Your task to perform on an android device: Empty the shopping cart on bestbuy. Add "bose soundlink mini" to the cart on bestbuy, then select checkout. Image 0: 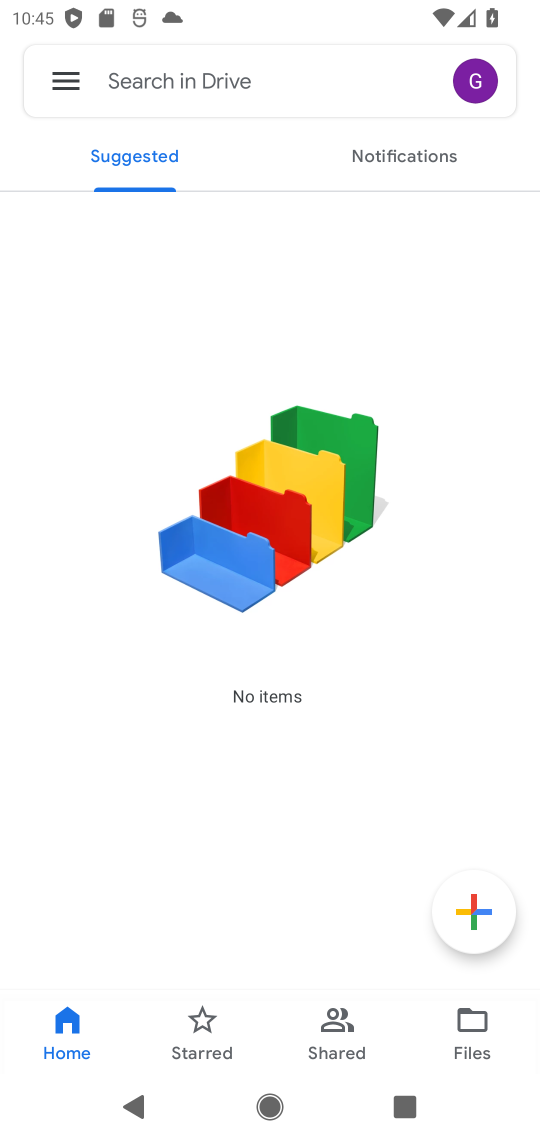
Step 0: press home button
Your task to perform on an android device: Empty the shopping cart on bestbuy. Add "bose soundlink mini" to the cart on bestbuy, then select checkout. Image 1: 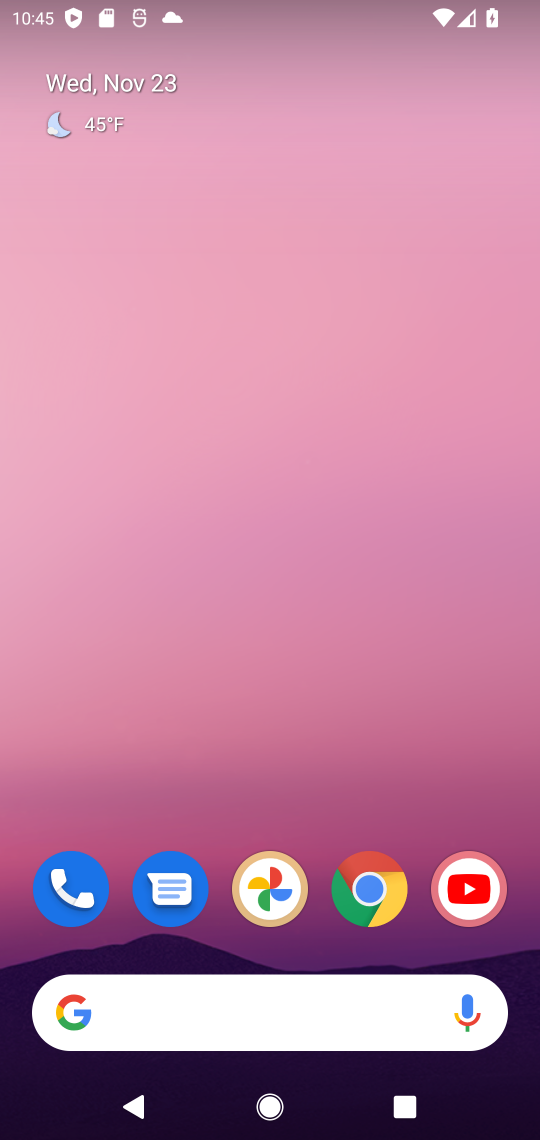
Step 1: click (373, 888)
Your task to perform on an android device: Empty the shopping cart on bestbuy. Add "bose soundlink mini" to the cart on bestbuy, then select checkout. Image 2: 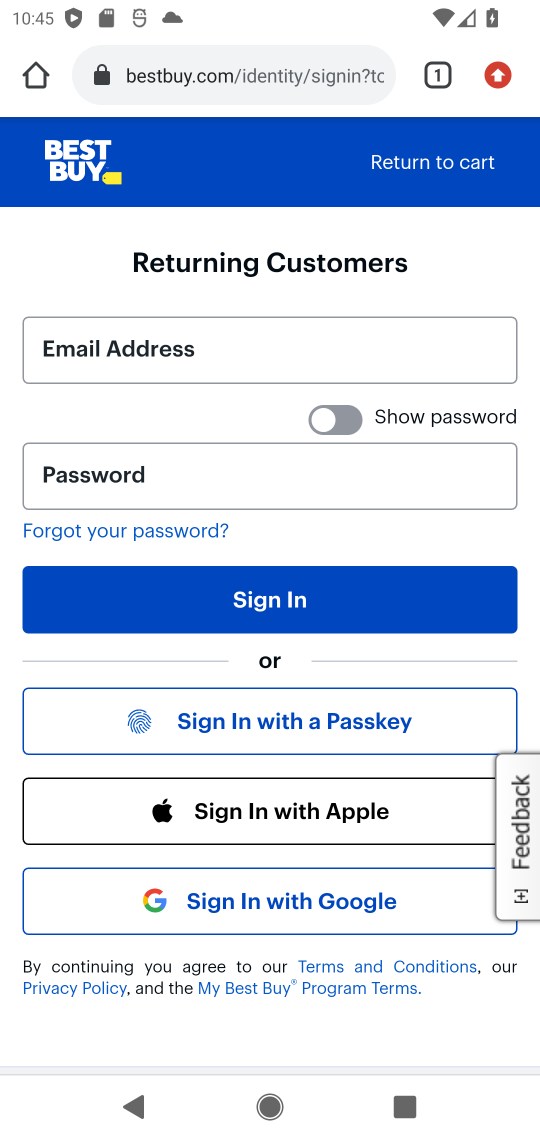
Step 2: click (190, 81)
Your task to perform on an android device: Empty the shopping cart on bestbuy. Add "bose soundlink mini" to the cart on bestbuy, then select checkout. Image 3: 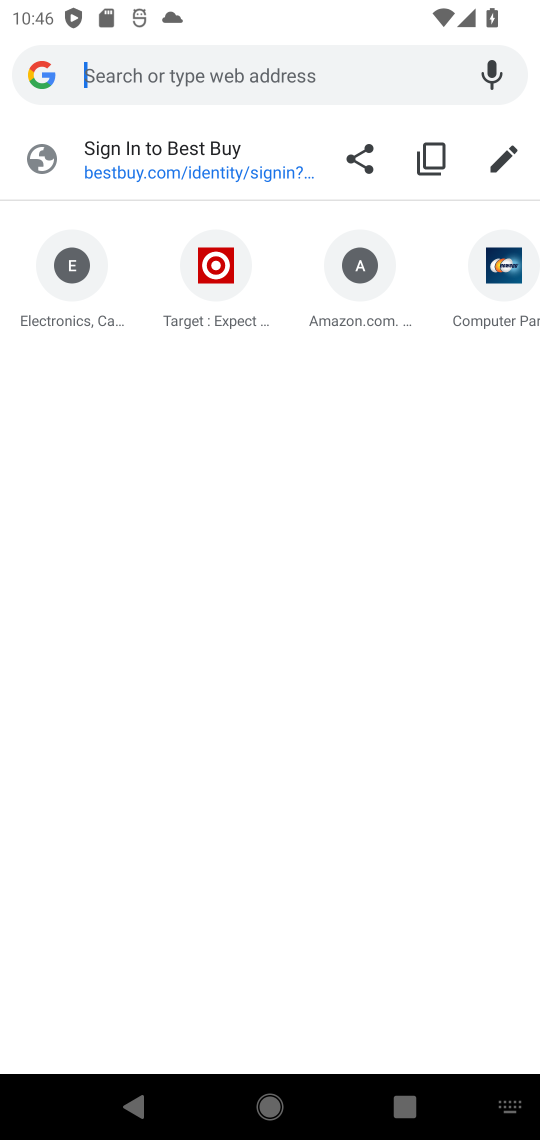
Step 3: click (129, 74)
Your task to perform on an android device: Empty the shopping cart on bestbuy. Add "bose soundlink mini" to the cart on bestbuy, then select checkout. Image 4: 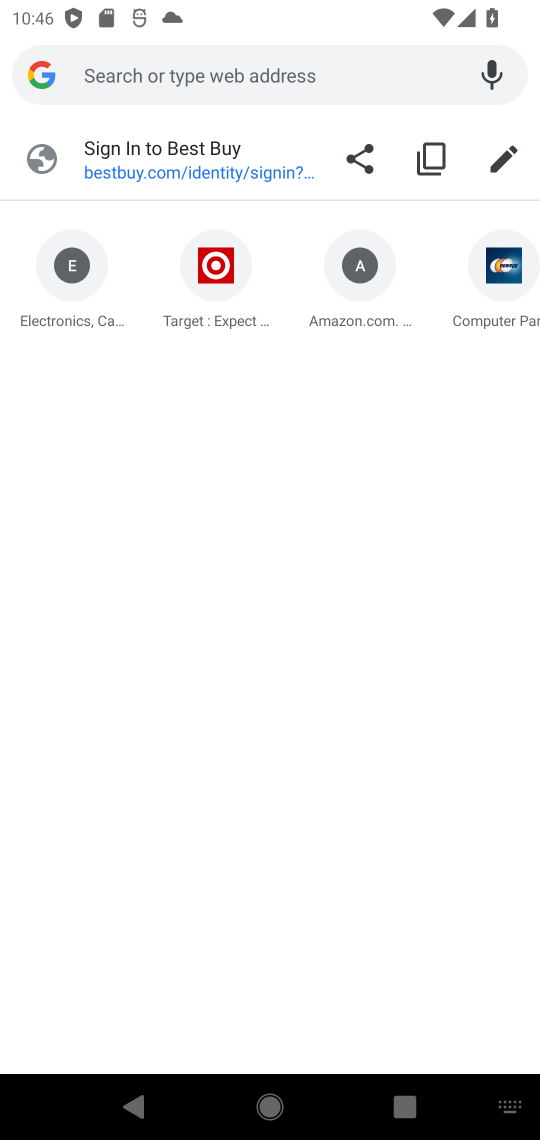
Step 4: type "bestbuy.com"
Your task to perform on an android device: Empty the shopping cart on bestbuy. Add "bose soundlink mini" to the cart on bestbuy, then select checkout. Image 5: 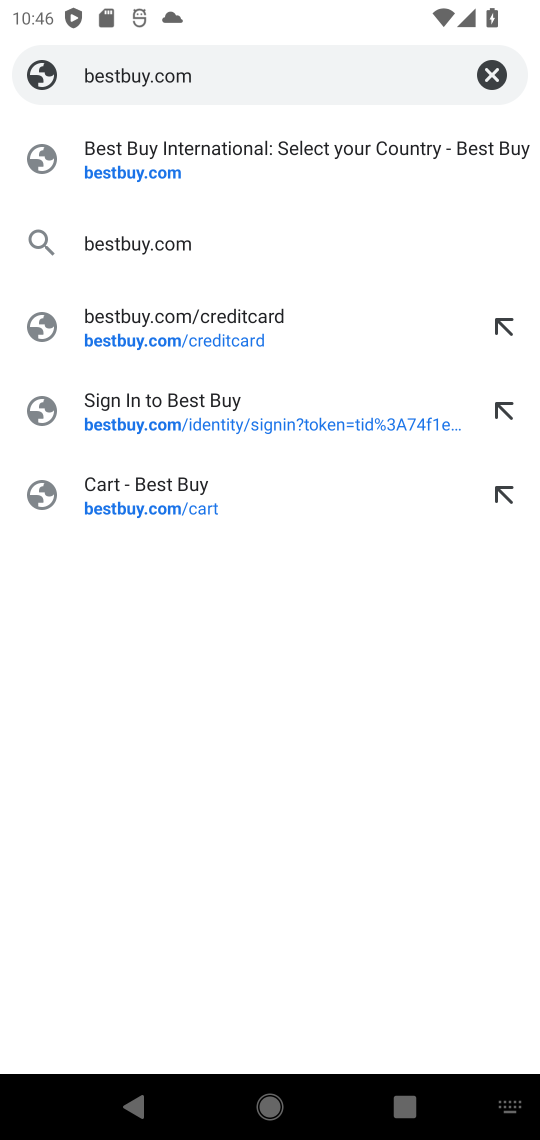
Step 5: click (121, 181)
Your task to perform on an android device: Empty the shopping cart on bestbuy. Add "bose soundlink mini" to the cart on bestbuy, then select checkout. Image 6: 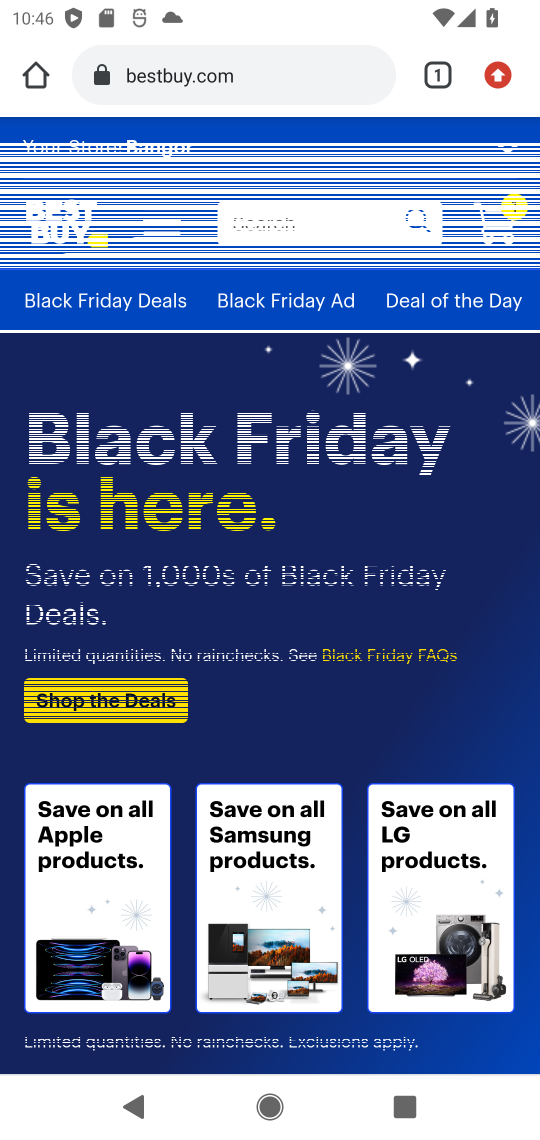
Step 6: click (490, 231)
Your task to perform on an android device: Empty the shopping cart on bestbuy. Add "bose soundlink mini" to the cart on bestbuy, then select checkout. Image 7: 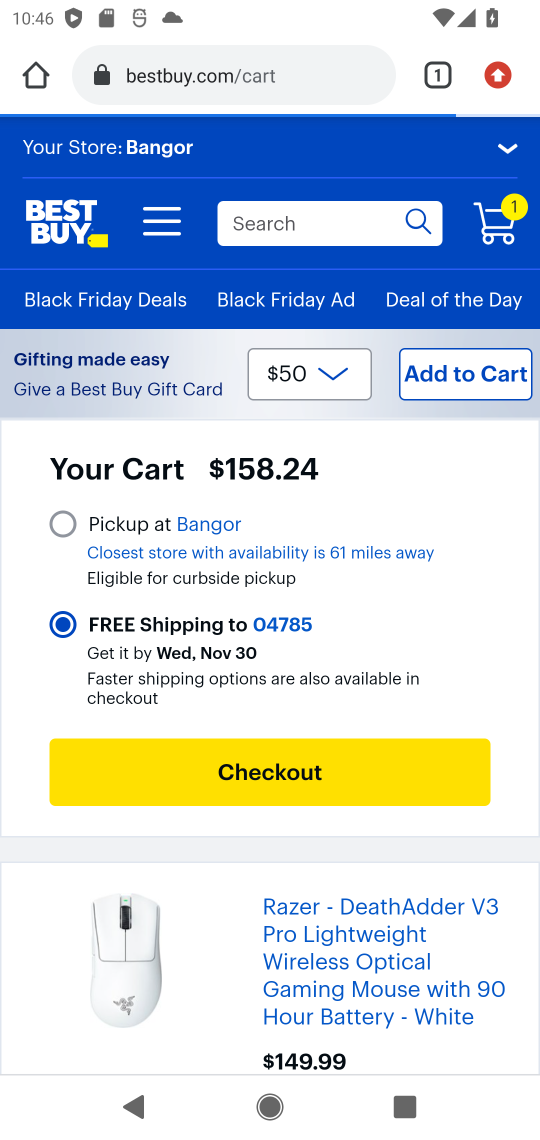
Step 7: drag from (231, 684) to (237, 265)
Your task to perform on an android device: Empty the shopping cart on bestbuy. Add "bose soundlink mini" to the cart on bestbuy, then select checkout. Image 8: 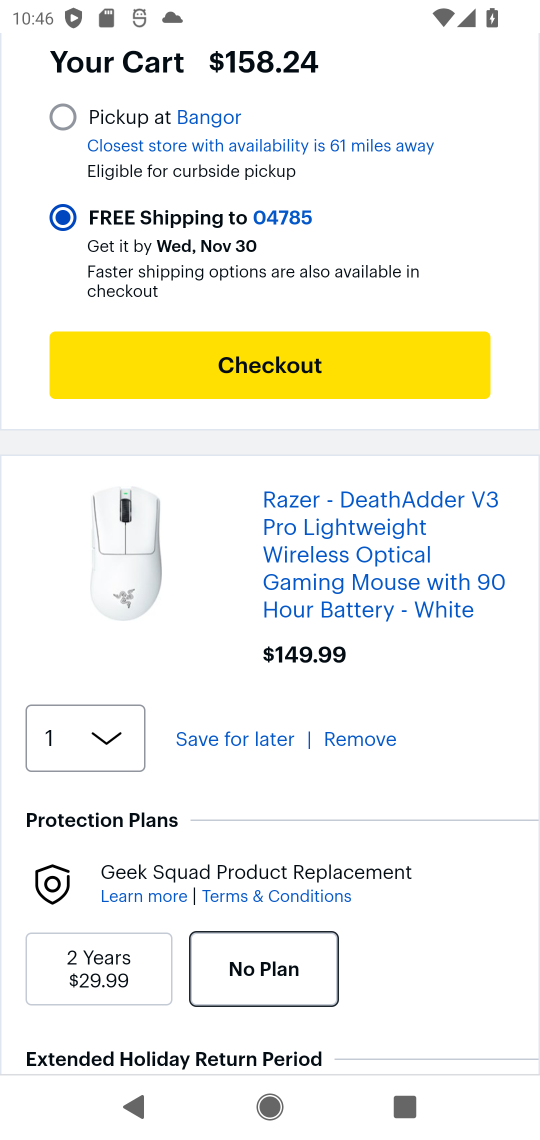
Step 8: click (346, 750)
Your task to perform on an android device: Empty the shopping cart on bestbuy. Add "bose soundlink mini" to the cart on bestbuy, then select checkout. Image 9: 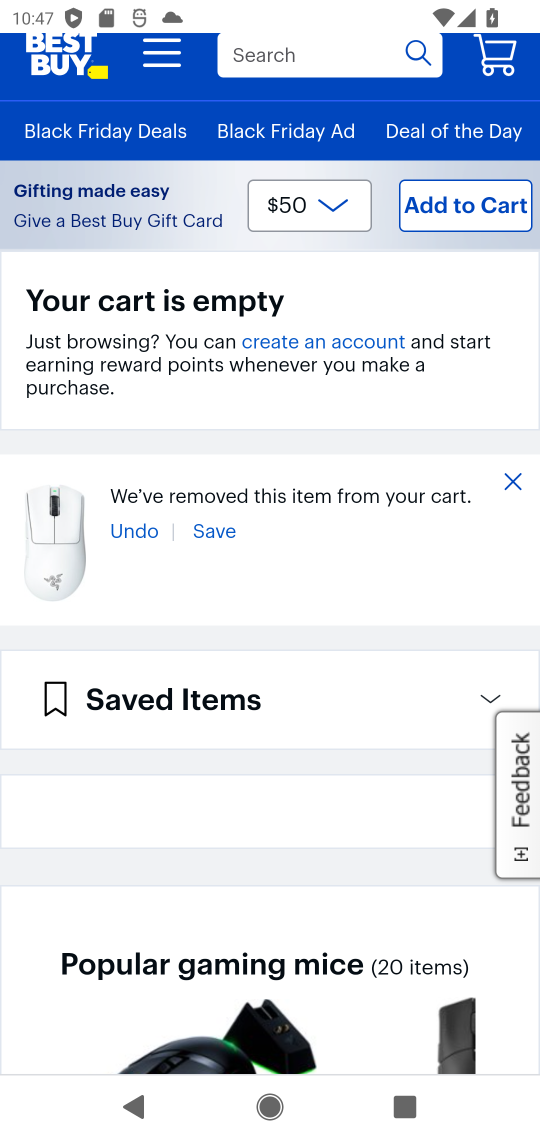
Step 9: click (292, 58)
Your task to perform on an android device: Empty the shopping cart on bestbuy. Add "bose soundlink mini" to the cart on bestbuy, then select checkout. Image 10: 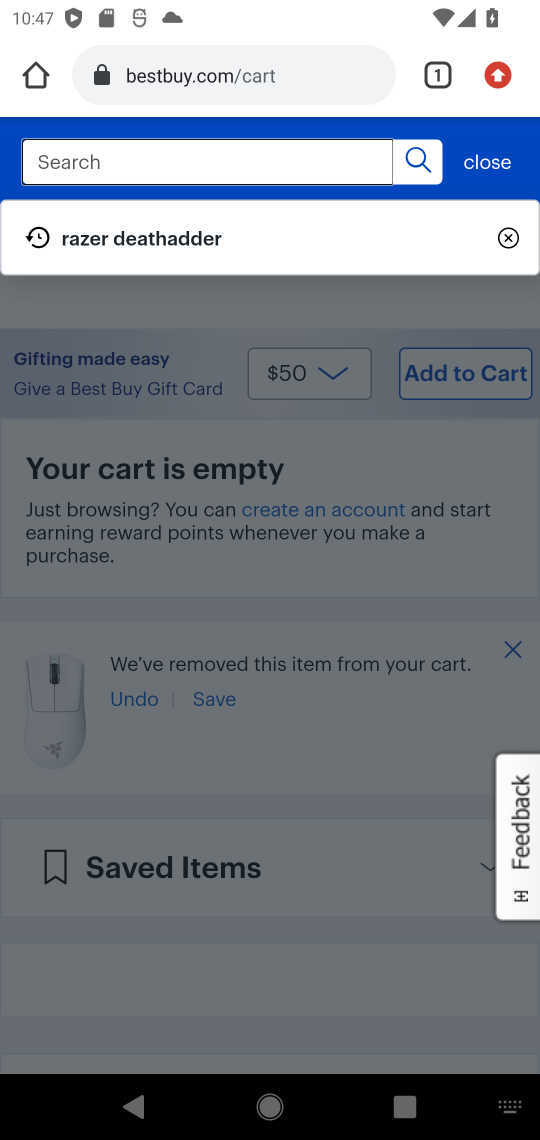
Step 10: type "bose soundlink mini"
Your task to perform on an android device: Empty the shopping cart on bestbuy. Add "bose soundlink mini" to the cart on bestbuy, then select checkout. Image 11: 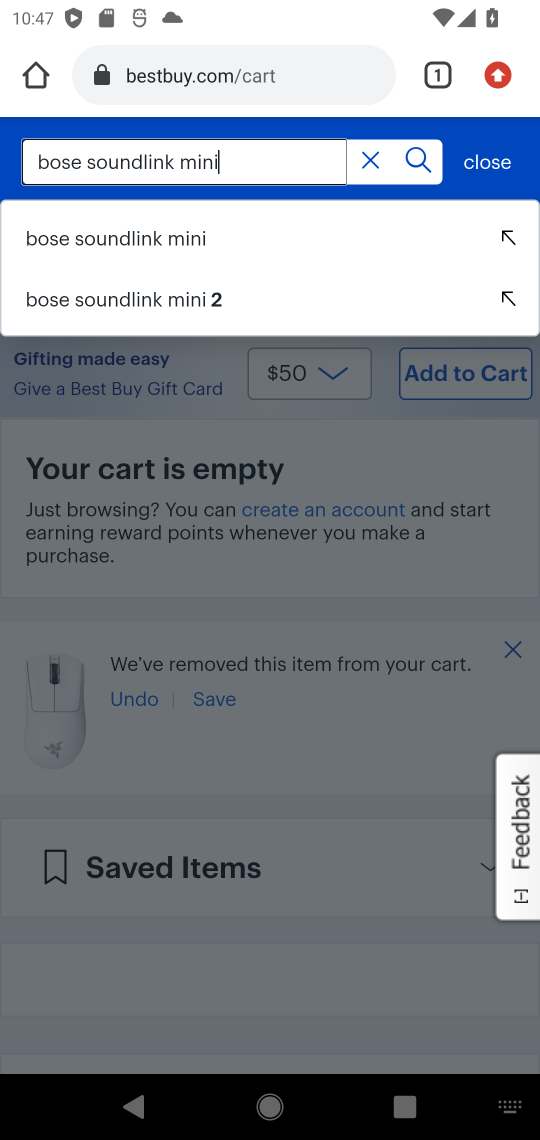
Step 11: click (118, 244)
Your task to perform on an android device: Empty the shopping cart on bestbuy. Add "bose soundlink mini" to the cart on bestbuy, then select checkout. Image 12: 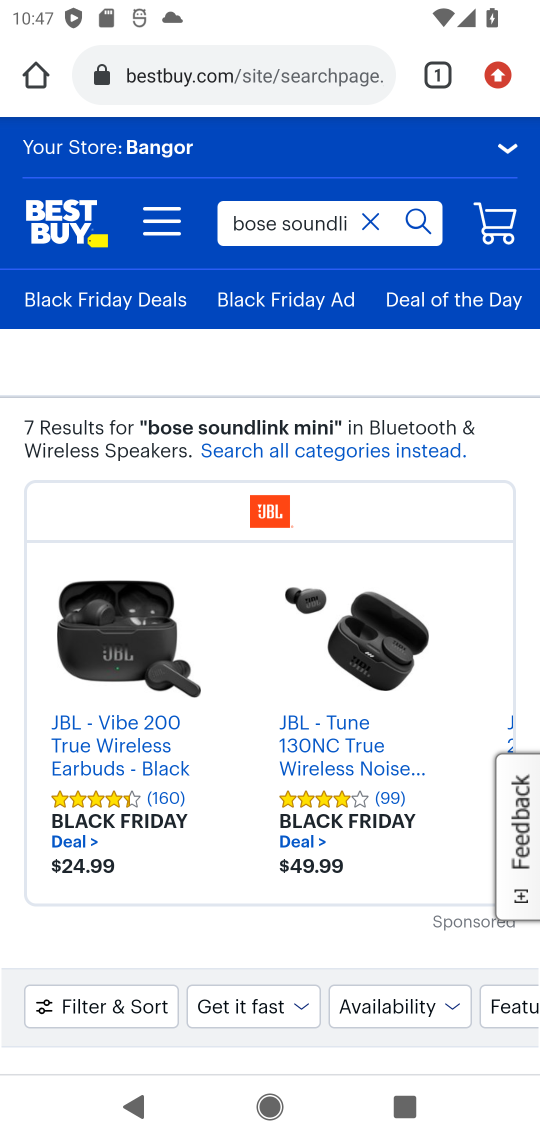
Step 12: task complete